Your task to perform on an android device: Toggle the flashlight Image 0: 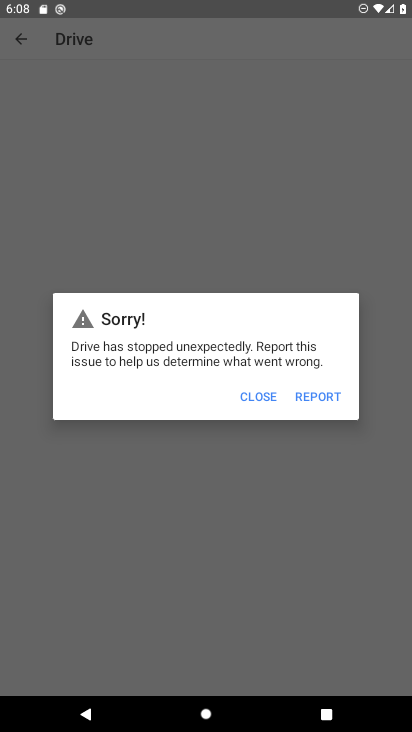
Step 0: press home button
Your task to perform on an android device: Toggle the flashlight Image 1: 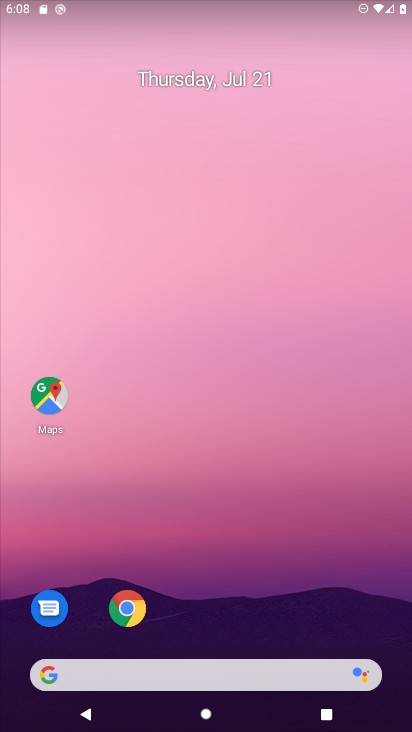
Step 1: drag from (209, 677) to (411, 313)
Your task to perform on an android device: Toggle the flashlight Image 2: 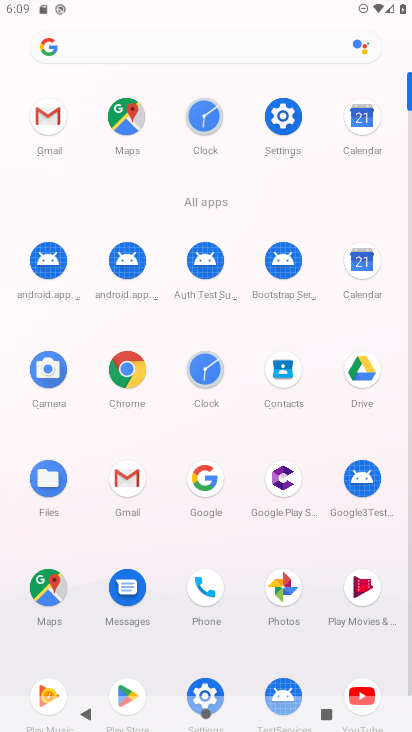
Step 2: click (282, 115)
Your task to perform on an android device: Toggle the flashlight Image 3: 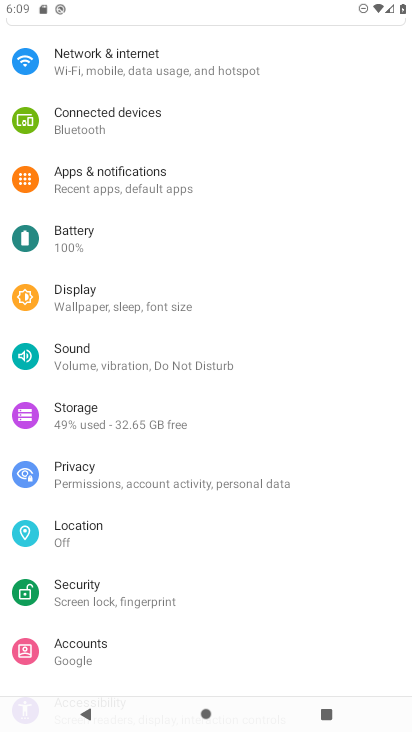
Step 3: click (114, 311)
Your task to perform on an android device: Toggle the flashlight Image 4: 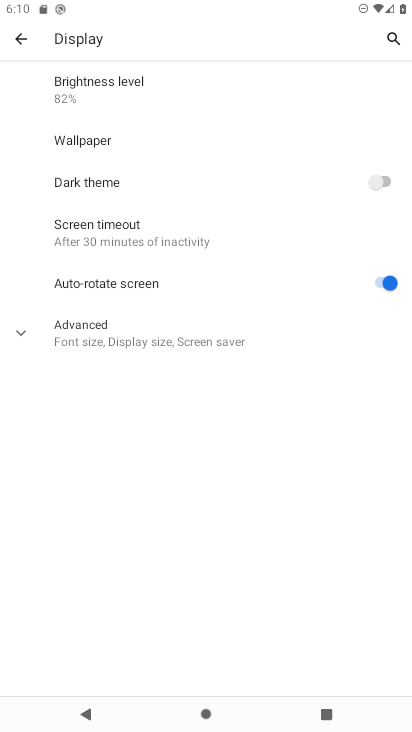
Step 4: click (390, 41)
Your task to perform on an android device: Toggle the flashlight Image 5: 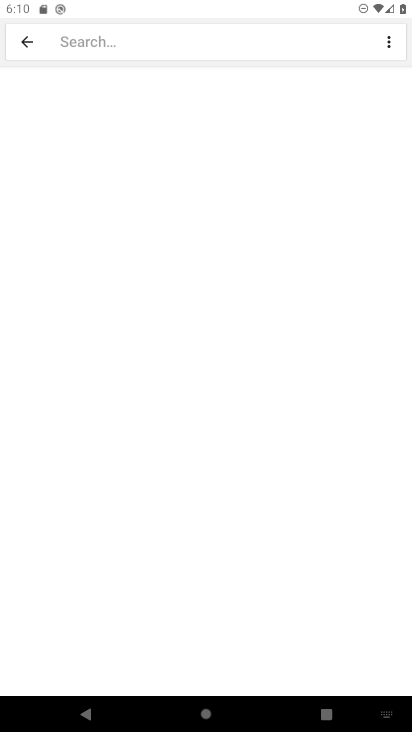
Step 5: type "flashlight"
Your task to perform on an android device: Toggle the flashlight Image 6: 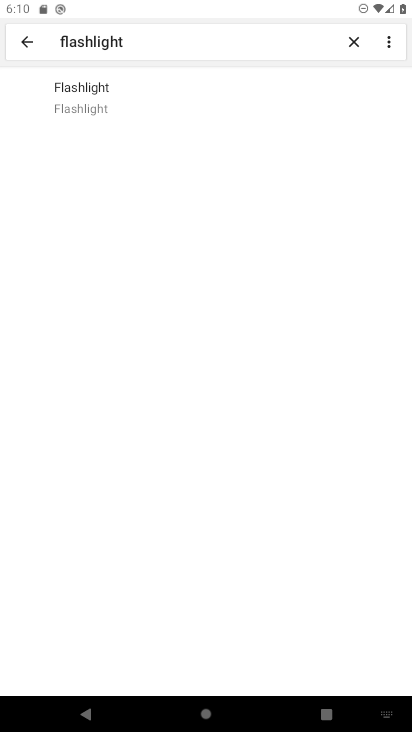
Step 6: click (101, 90)
Your task to perform on an android device: Toggle the flashlight Image 7: 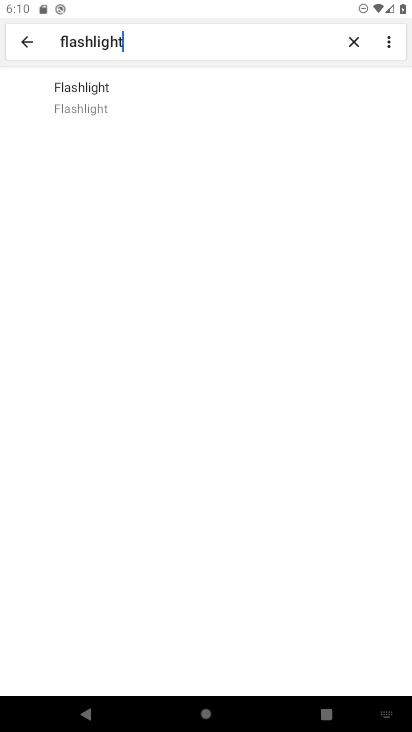
Step 7: click (91, 96)
Your task to perform on an android device: Toggle the flashlight Image 8: 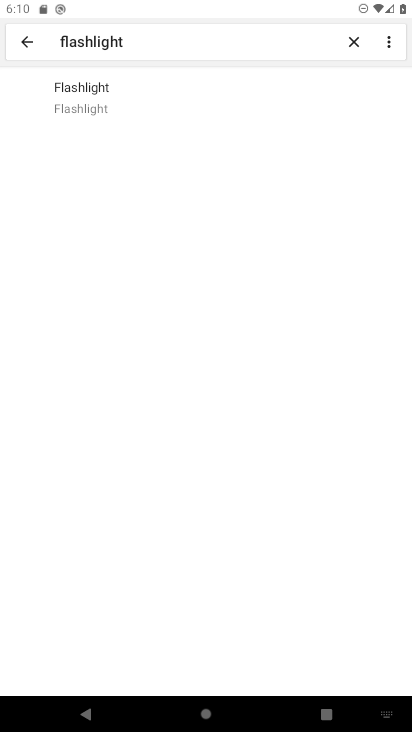
Step 8: click (98, 104)
Your task to perform on an android device: Toggle the flashlight Image 9: 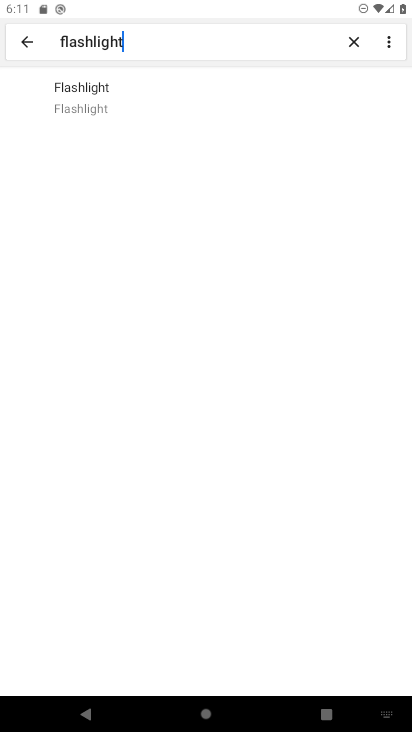
Step 9: task complete